Your task to perform on an android device: open chrome and create a bookmark for the current page Image 0: 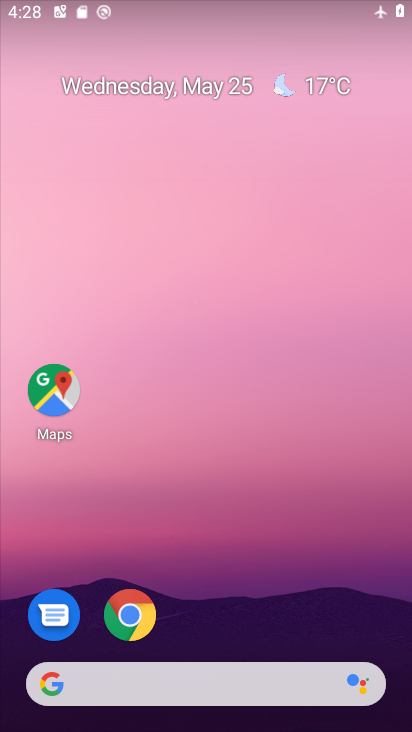
Step 0: click (139, 621)
Your task to perform on an android device: open chrome and create a bookmark for the current page Image 1: 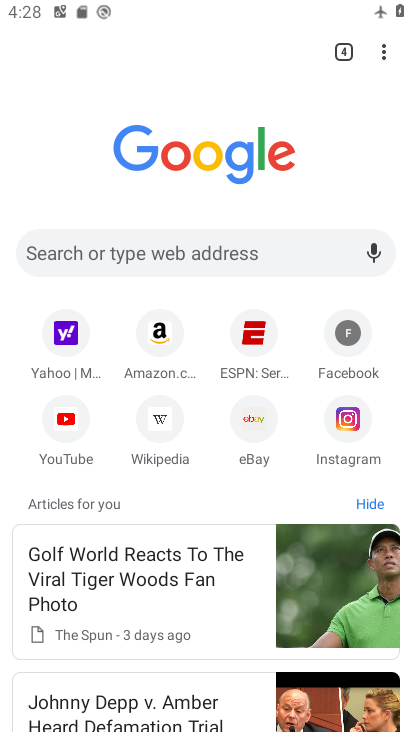
Step 1: click (384, 50)
Your task to perform on an android device: open chrome and create a bookmark for the current page Image 2: 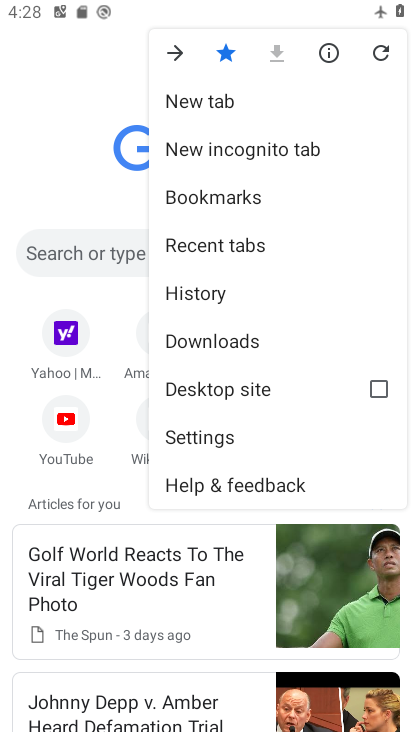
Step 2: task complete